Your task to perform on an android device: Open Android settings Image 0: 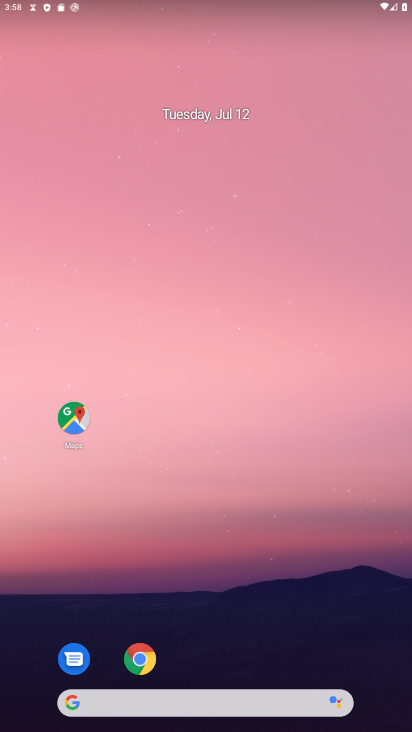
Step 0: press home button
Your task to perform on an android device: Open Android settings Image 1: 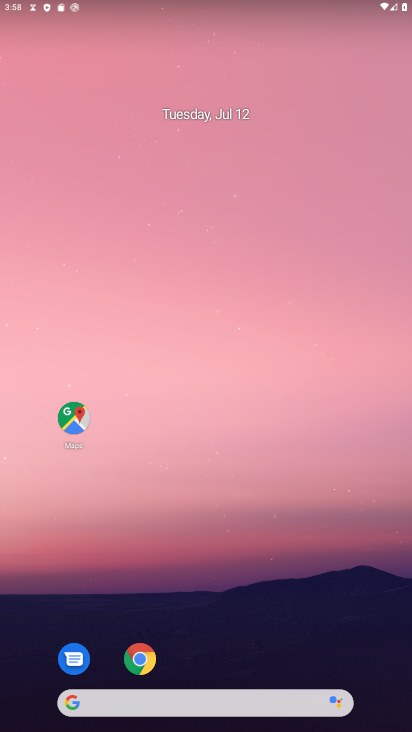
Step 1: drag from (233, 664) to (248, 104)
Your task to perform on an android device: Open Android settings Image 2: 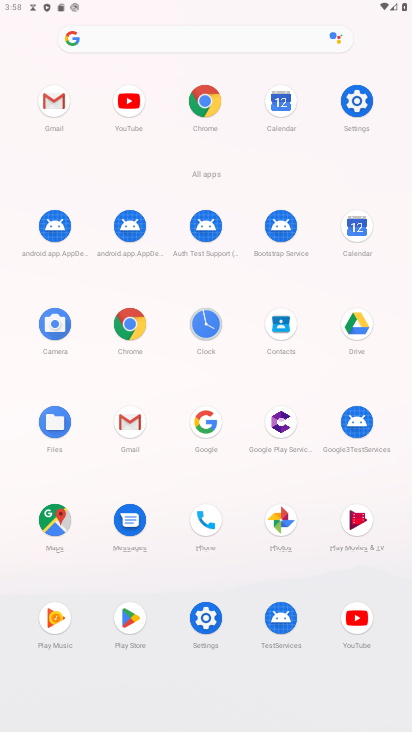
Step 2: click (349, 102)
Your task to perform on an android device: Open Android settings Image 3: 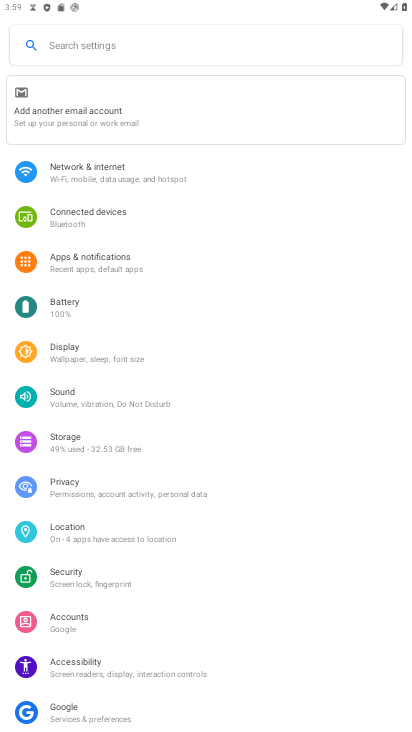
Step 3: task complete